Your task to perform on an android device: Open settings on Google Maps Image 0: 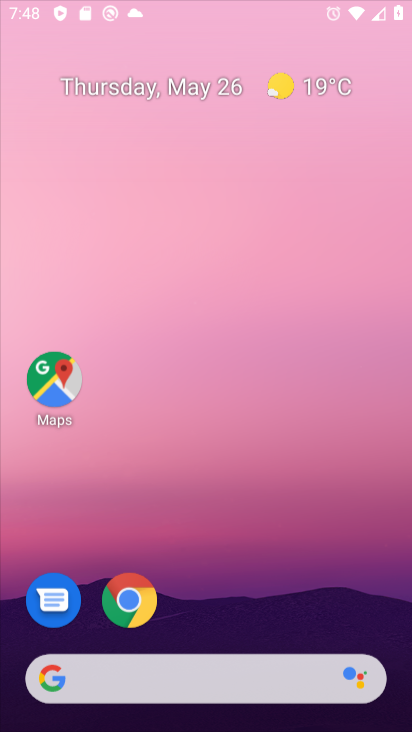
Step 0: press home button
Your task to perform on an android device: Open settings on Google Maps Image 1: 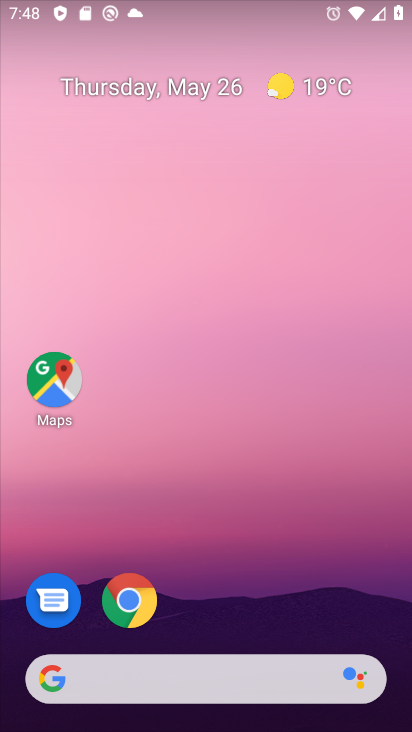
Step 1: click (52, 376)
Your task to perform on an android device: Open settings on Google Maps Image 2: 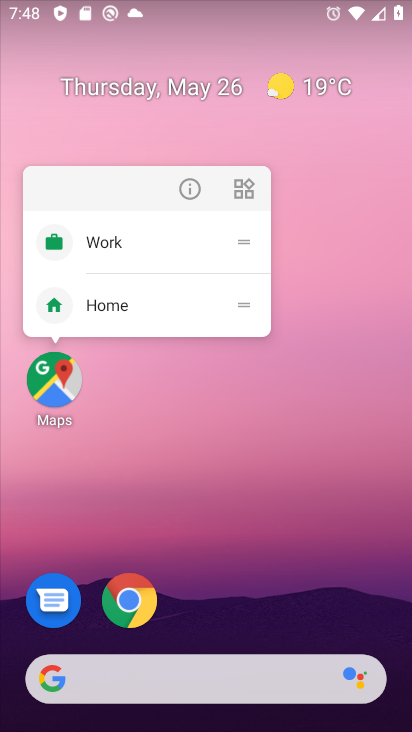
Step 2: click (56, 392)
Your task to perform on an android device: Open settings on Google Maps Image 3: 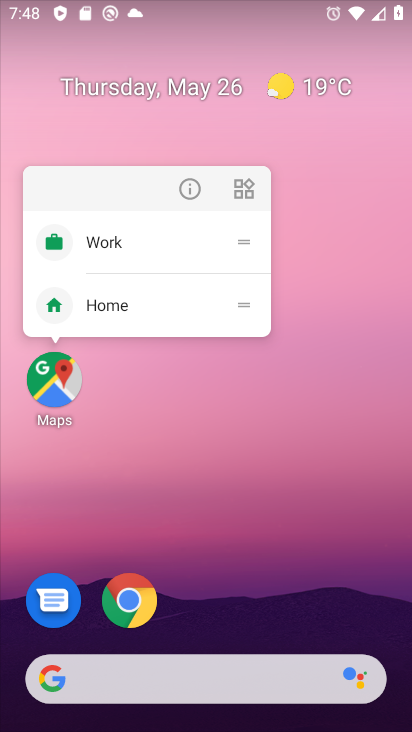
Step 3: click (56, 392)
Your task to perform on an android device: Open settings on Google Maps Image 4: 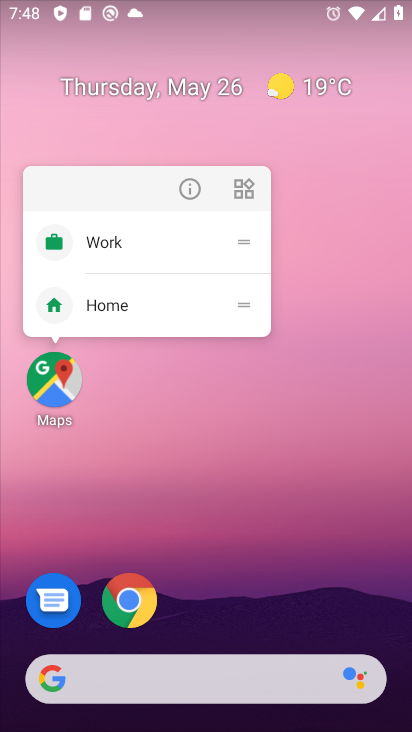
Step 4: click (269, 437)
Your task to perform on an android device: Open settings on Google Maps Image 5: 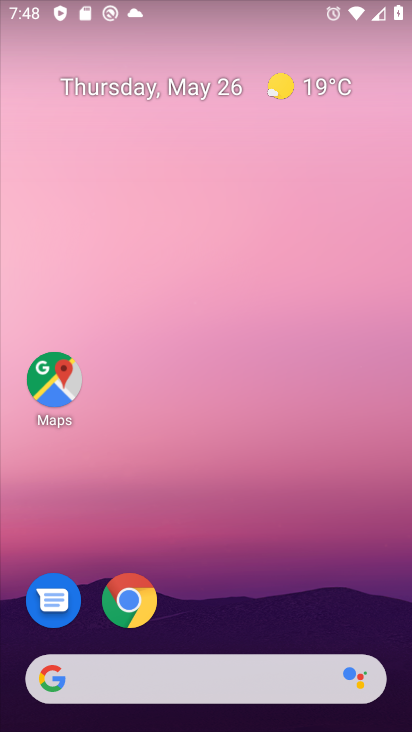
Step 5: click (53, 390)
Your task to perform on an android device: Open settings on Google Maps Image 6: 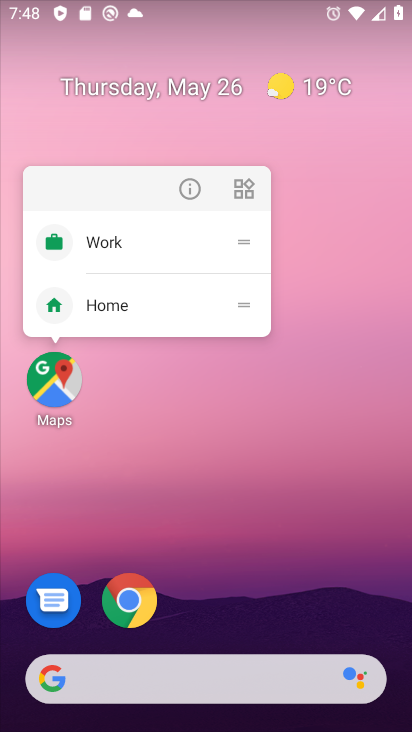
Step 6: click (336, 444)
Your task to perform on an android device: Open settings on Google Maps Image 7: 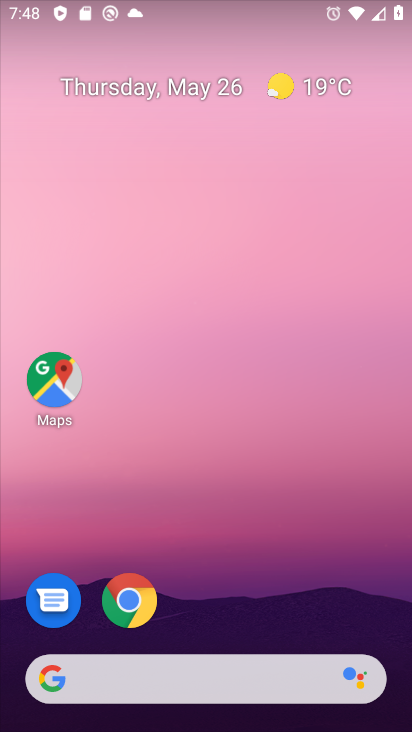
Step 7: click (62, 382)
Your task to perform on an android device: Open settings on Google Maps Image 8: 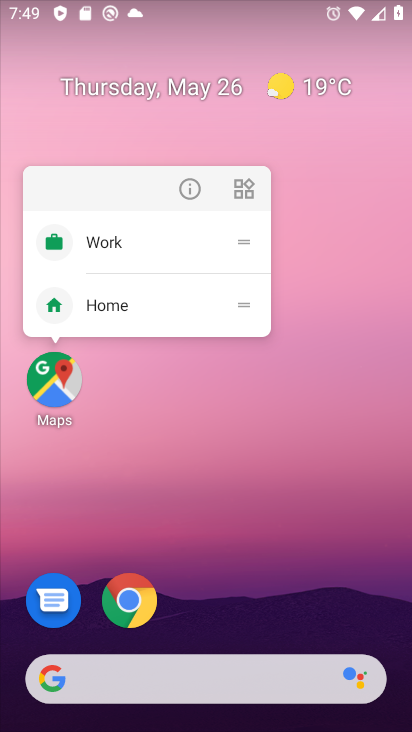
Step 8: drag from (284, 612) to (336, 138)
Your task to perform on an android device: Open settings on Google Maps Image 9: 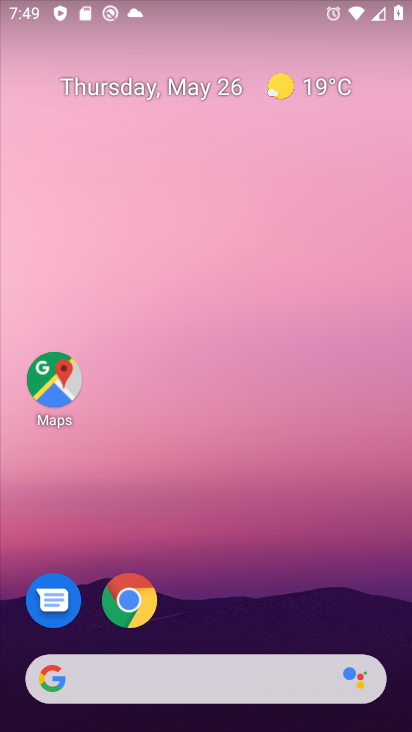
Step 9: drag from (276, 626) to (280, 170)
Your task to perform on an android device: Open settings on Google Maps Image 10: 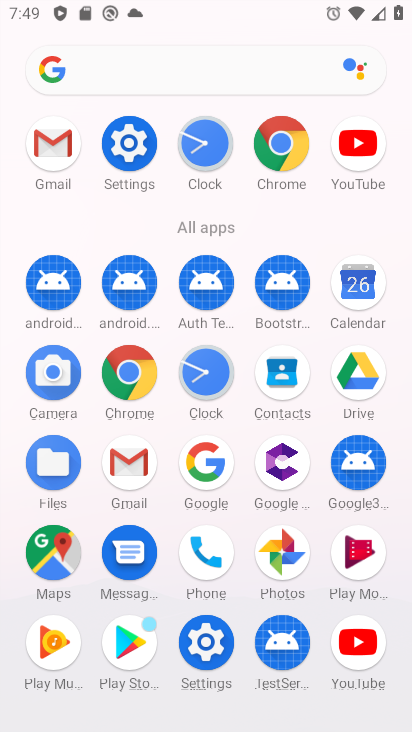
Step 10: click (51, 561)
Your task to perform on an android device: Open settings on Google Maps Image 11: 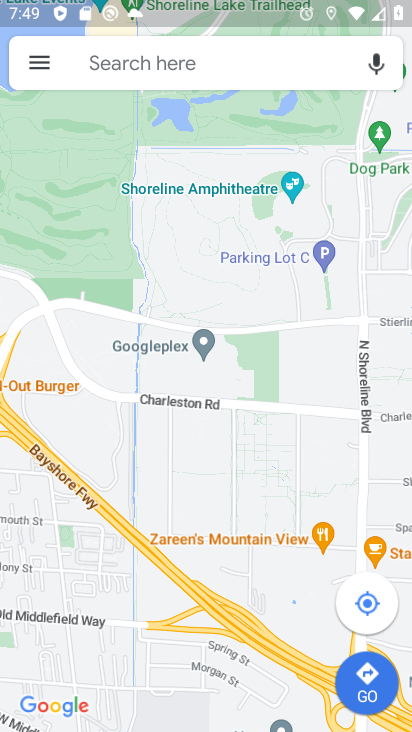
Step 11: click (43, 63)
Your task to perform on an android device: Open settings on Google Maps Image 12: 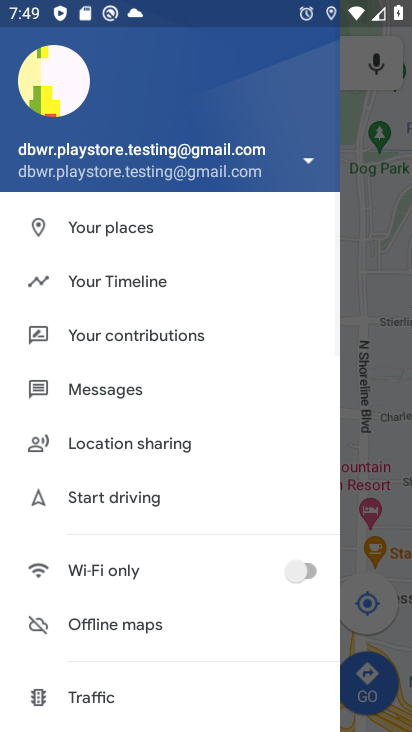
Step 12: drag from (209, 698) to (177, 66)
Your task to perform on an android device: Open settings on Google Maps Image 13: 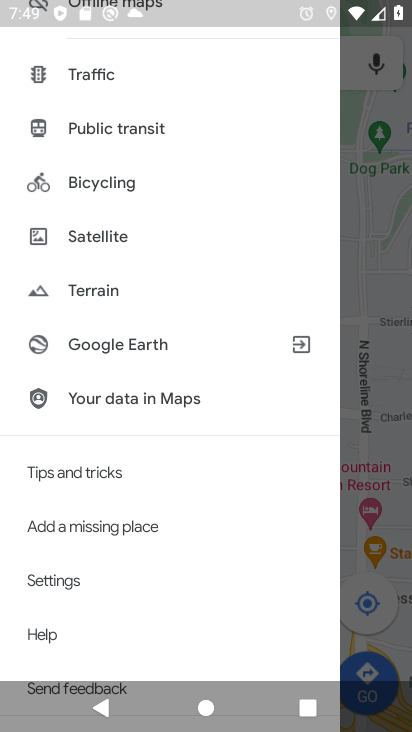
Step 13: click (49, 581)
Your task to perform on an android device: Open settings on Google Maps Image 14: 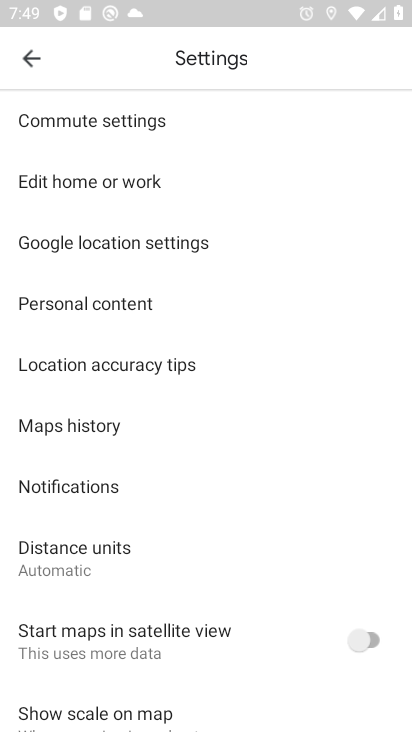
Step 14: task complete